Your task to perform on an android device: Go to Google Image 0: 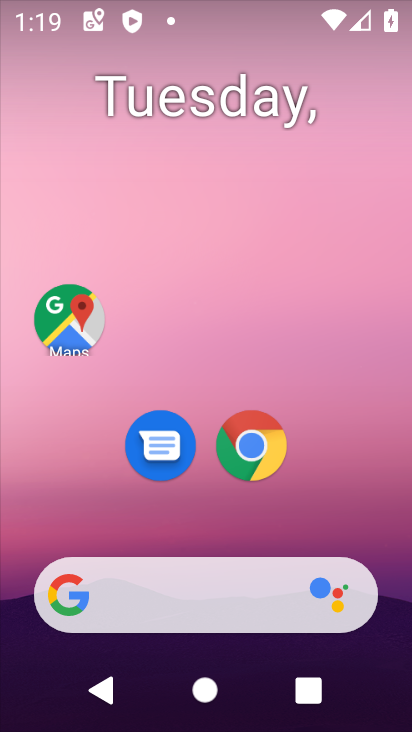
Step 0: drag from (347, 533) to (300, 117)
Your task to perform on an android device: Go to Google Image 1: 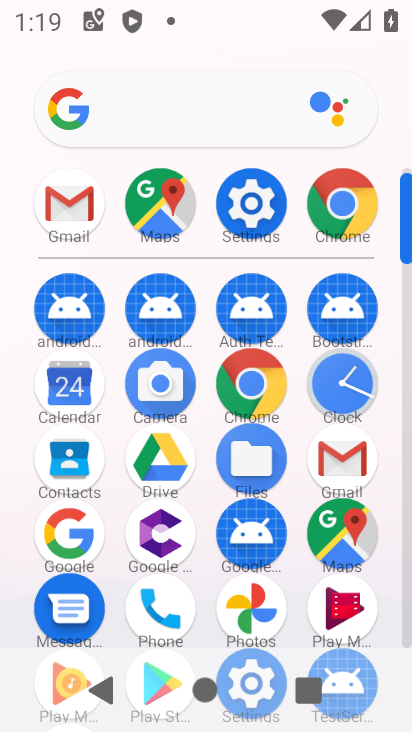
Step 1: click (58, 547)
Your task to perform on an android device: Go to Google Image 2: 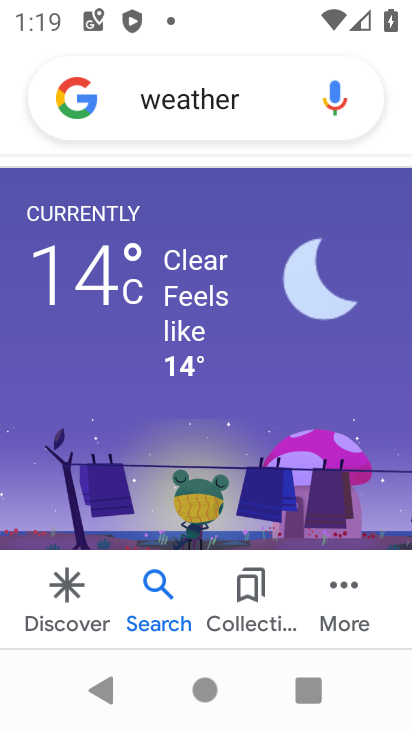
Step 2: task complete